Your task to perform on an android device: Clear the cart on target. Add "asus zenbook" to the cart on target, then select checkout. Image 0: 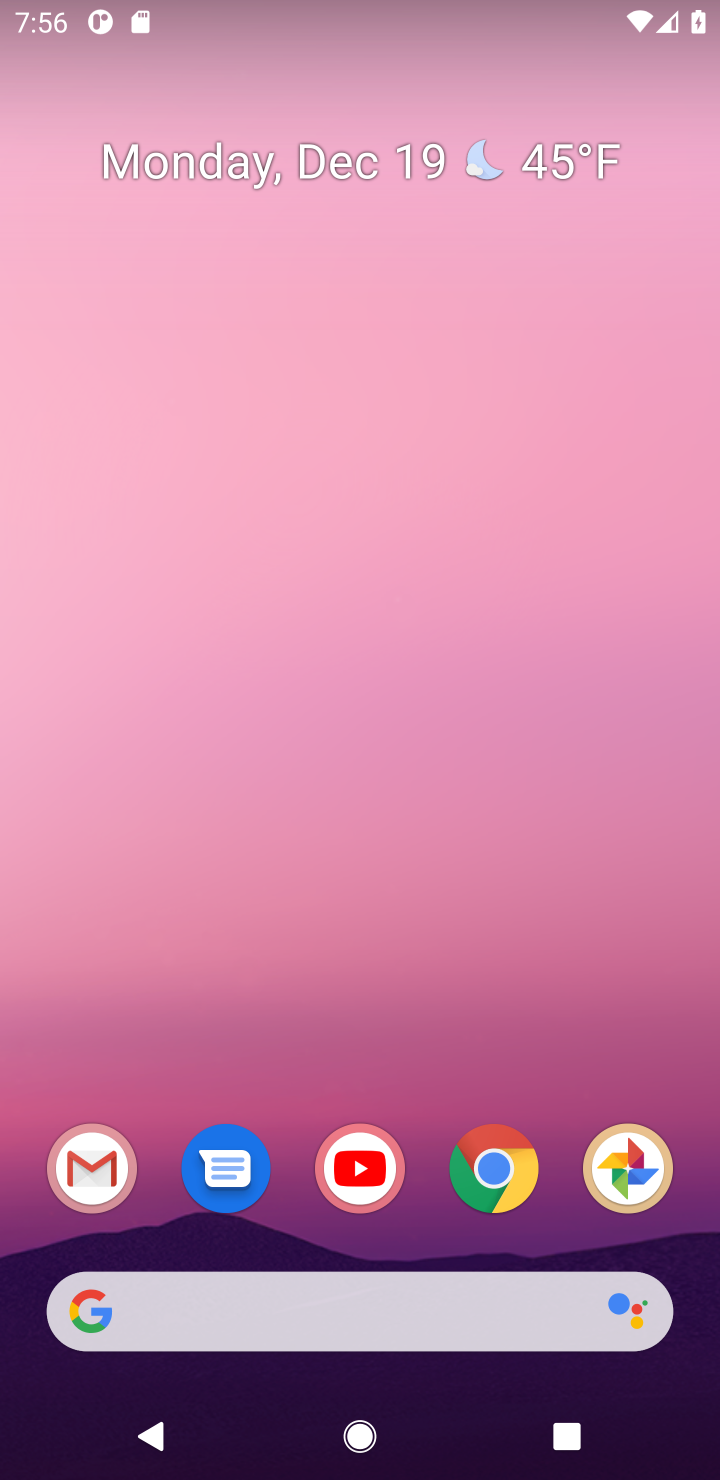
Step 0: click (496, 1169)
Your task to perform on an android device: Clear the cart on target. Add "asus zenbook" to the cart on target, then select checkout. Image 1: 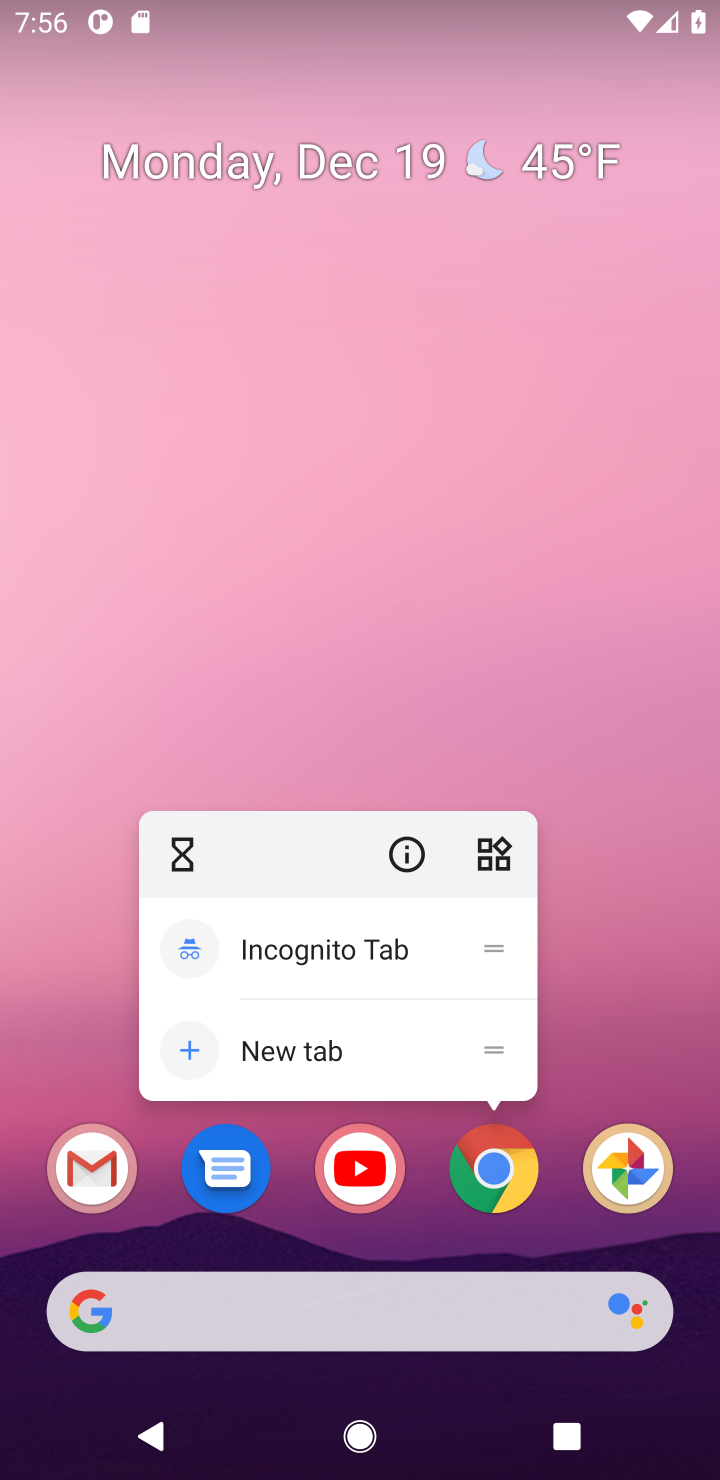
Step 1: click (496, 1169)
Your task to perform on an android device: Clear the cart on target. Add "asus zenbook" to the cart on target, then select checkout. Image 2: 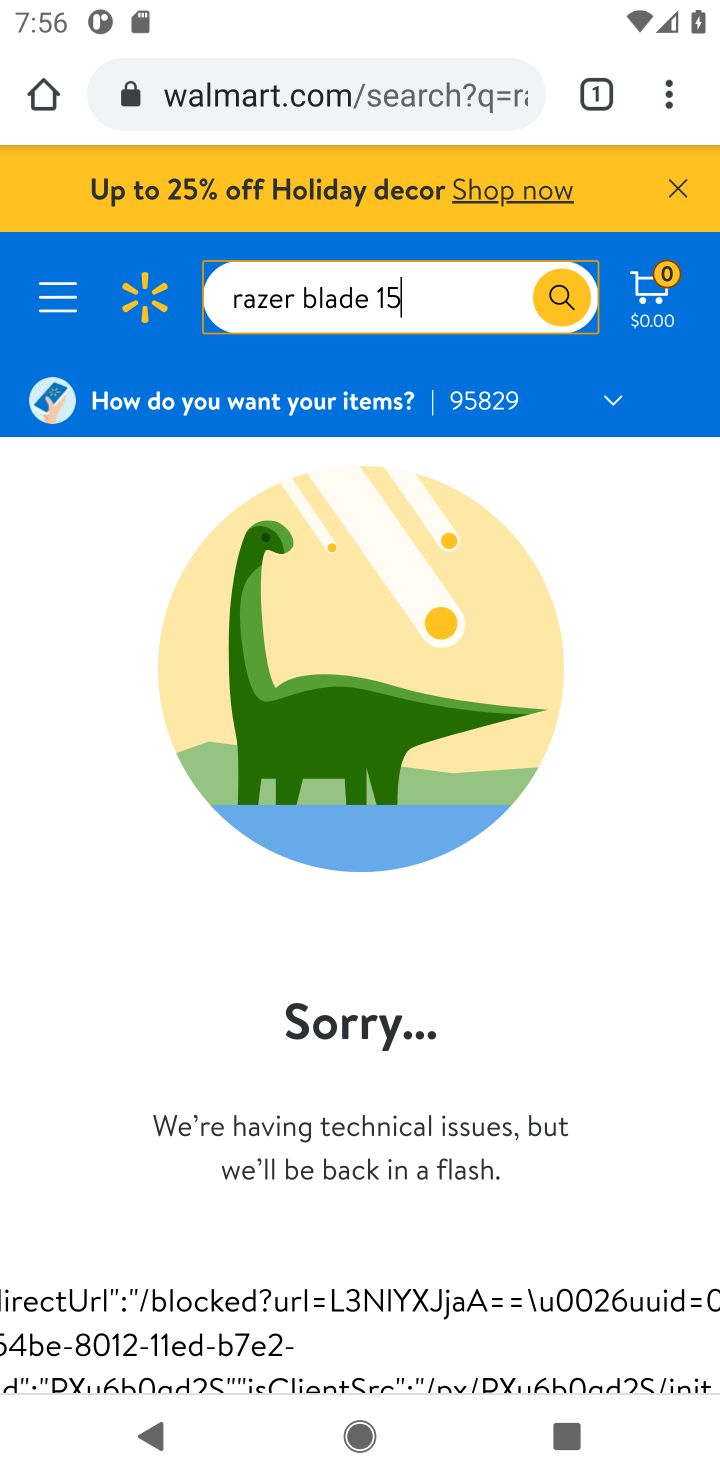
Step 2: click (210, 93)
Your task to perform on an android device: Clear the cart on target. Add "asus zenbook" to the cart on target, then select checkout. Image 3: 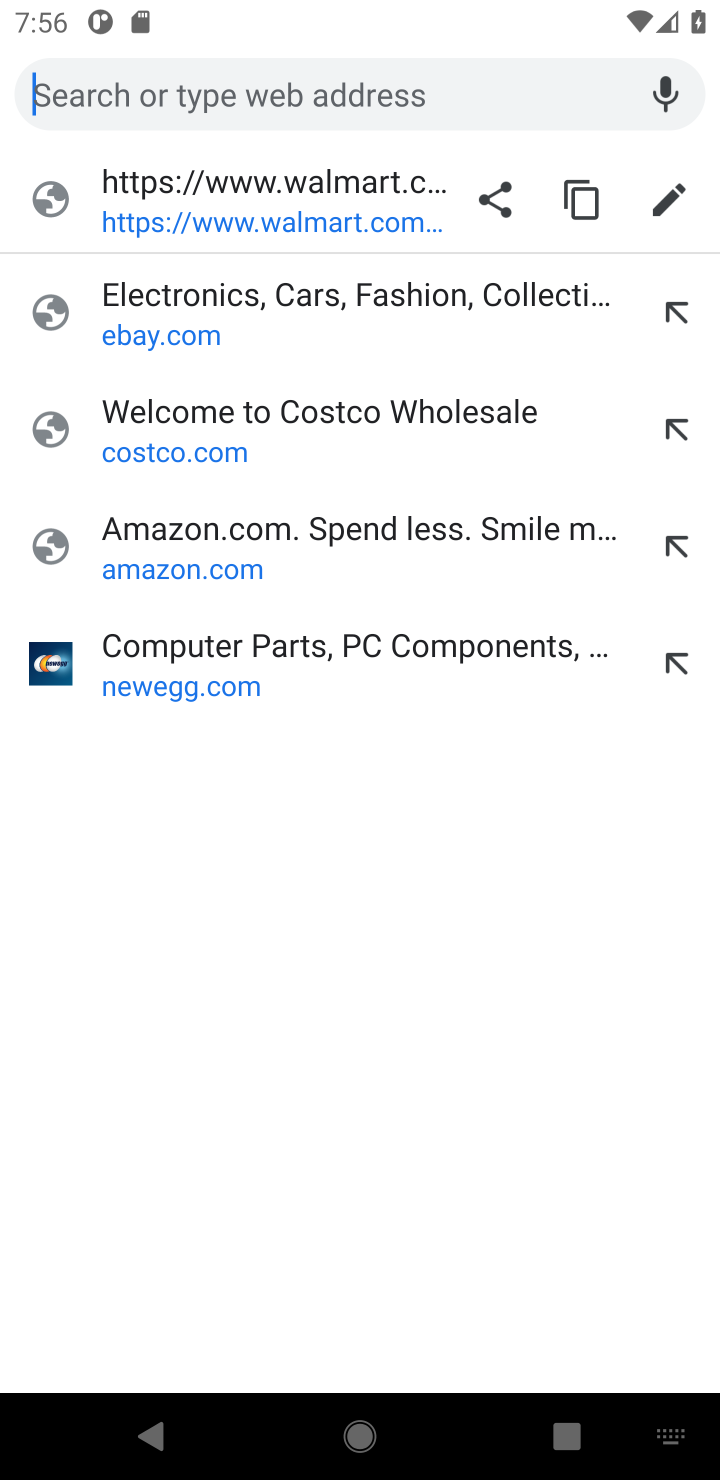
Step 3: type "target.com"
Your task to perform on an android device: Clear the cart on target. Add "asus zenbook" to the cart on target, then select checkout. Image 4: 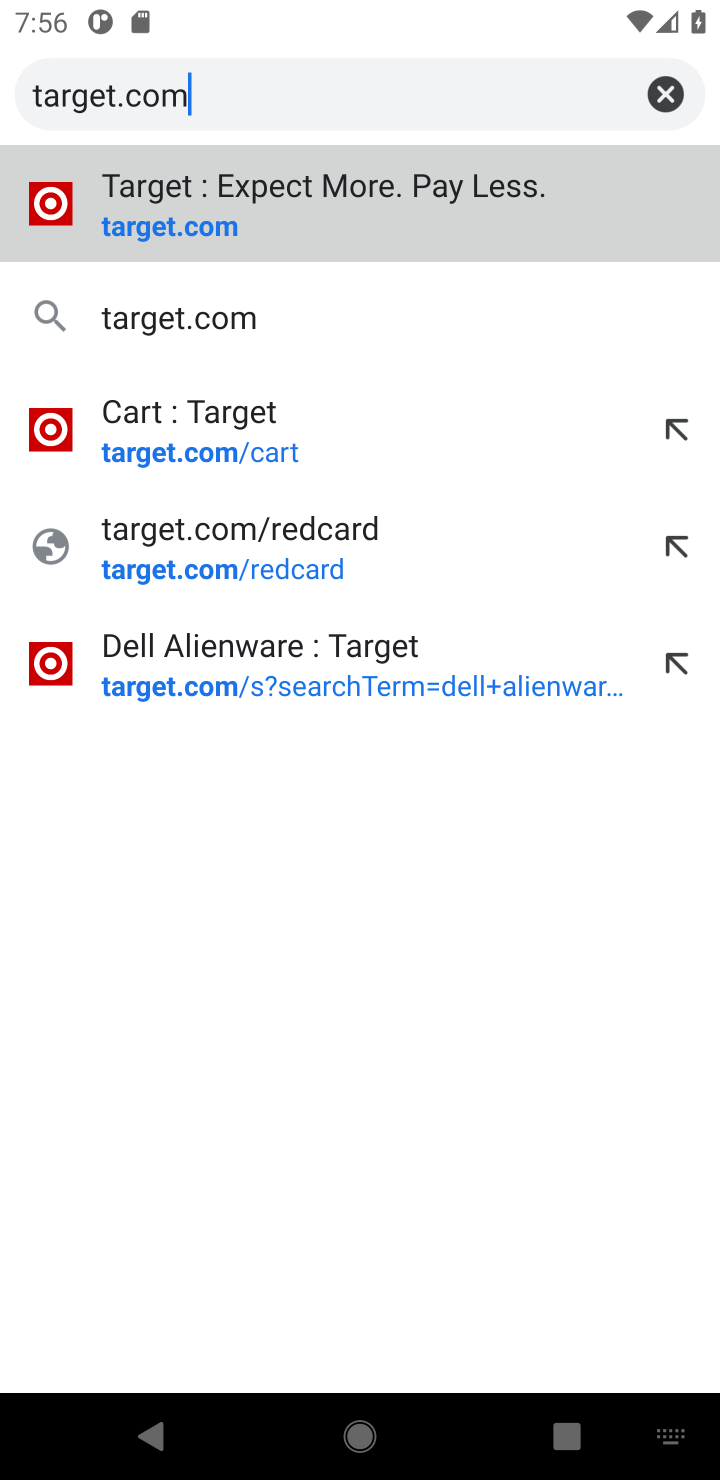
Step 4: click (178, 205)
Your task to perform on an android device: Clear the cart on target. Add "asus zenbook" to the cart on target, then select checkout. Image 5: 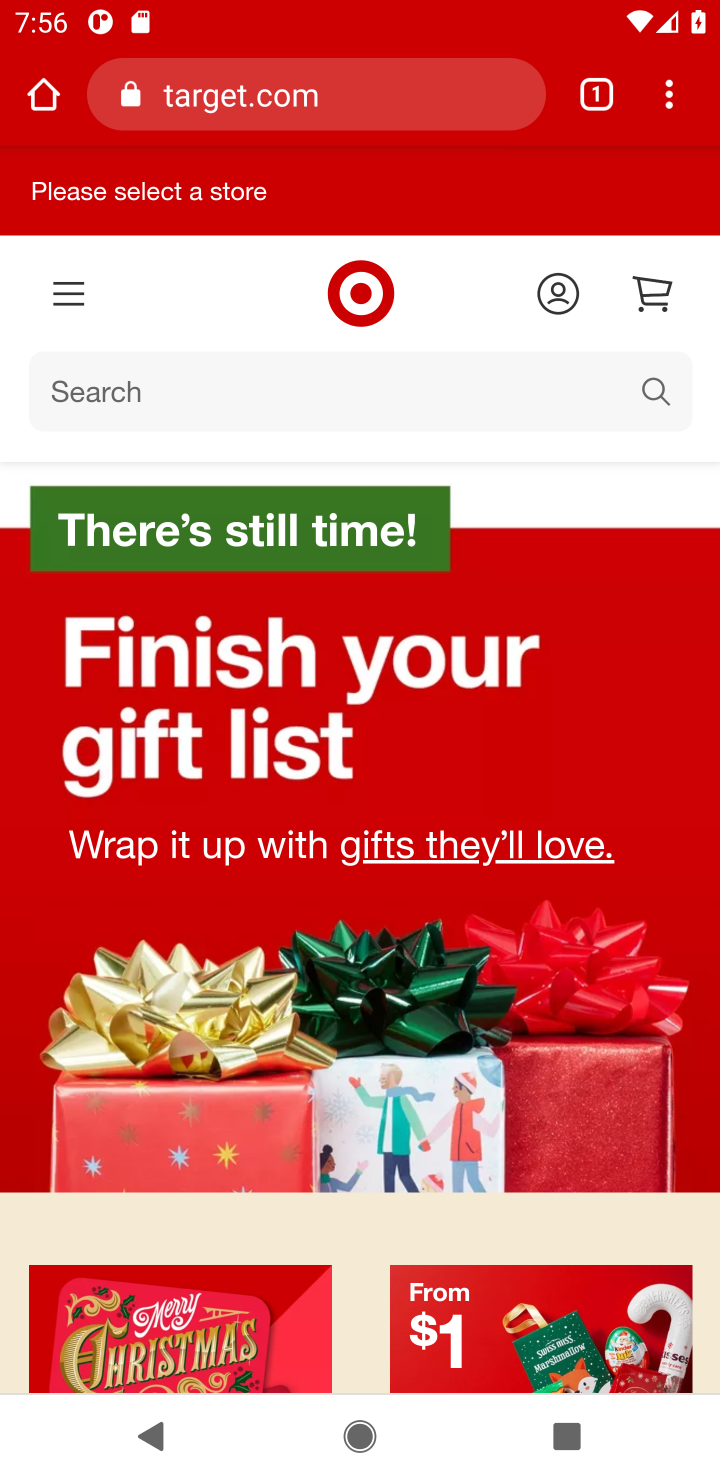
Step 5: click (73, 389)
Your task to perform on an android device: Clear the cart on target. Add "asus zenbook" to the cart on target, then select checkout. Image 6: 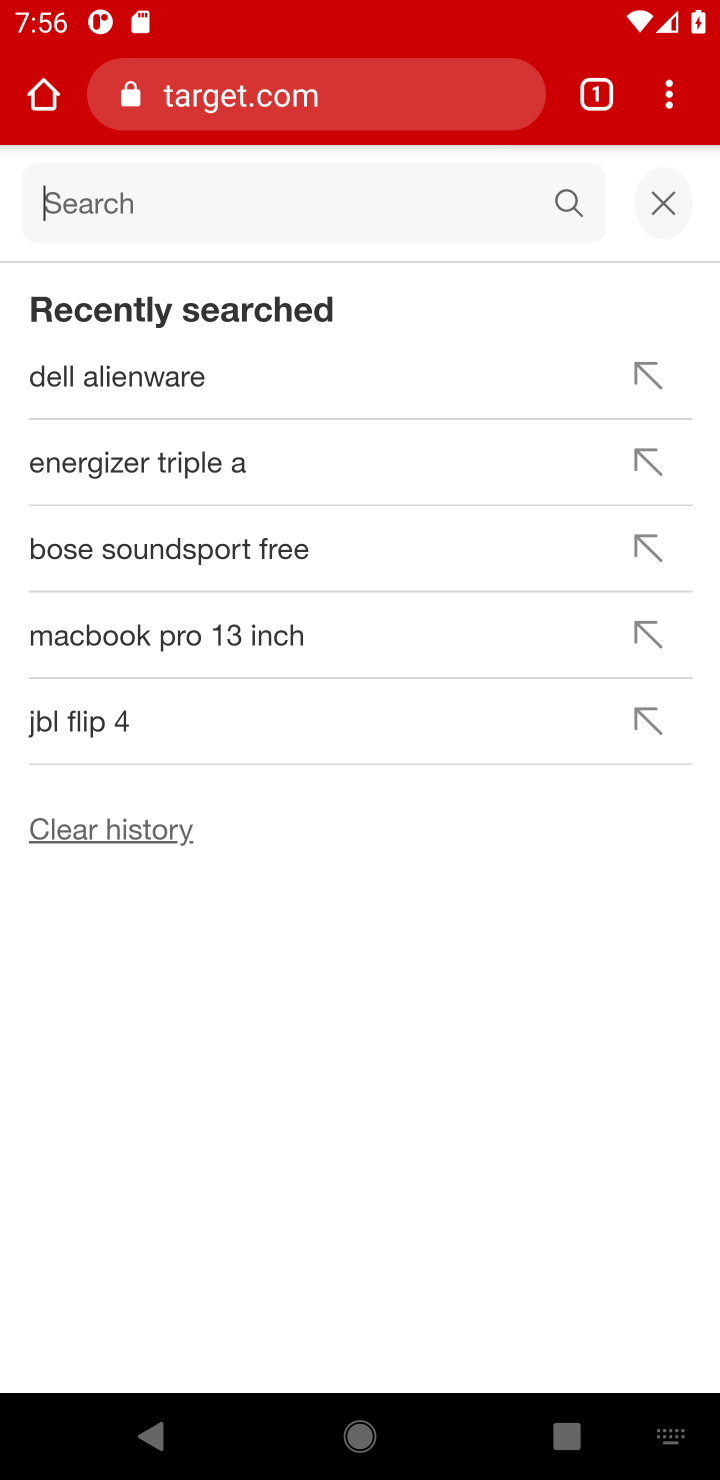
Step 6: type "asus zenbook"
Your task to perform on an android device: Clear the cart on target. Add "asus zenbook" to the cart on target, then select checkout. Image 7: 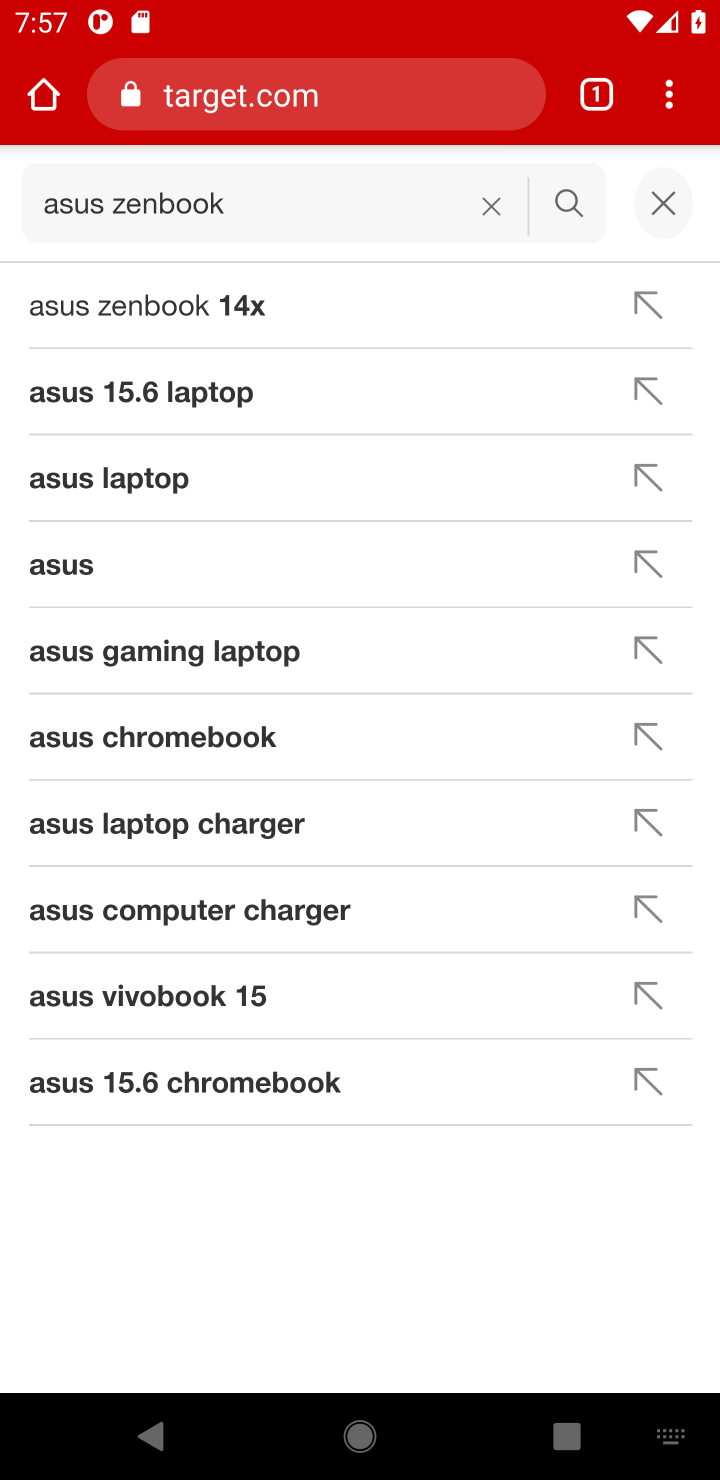
Step 7: click (560, 191)
Your task to perform on an android device: Clear the cart on target. Add "asus zenbook" to the cart on target, then select checkout. Image 8: 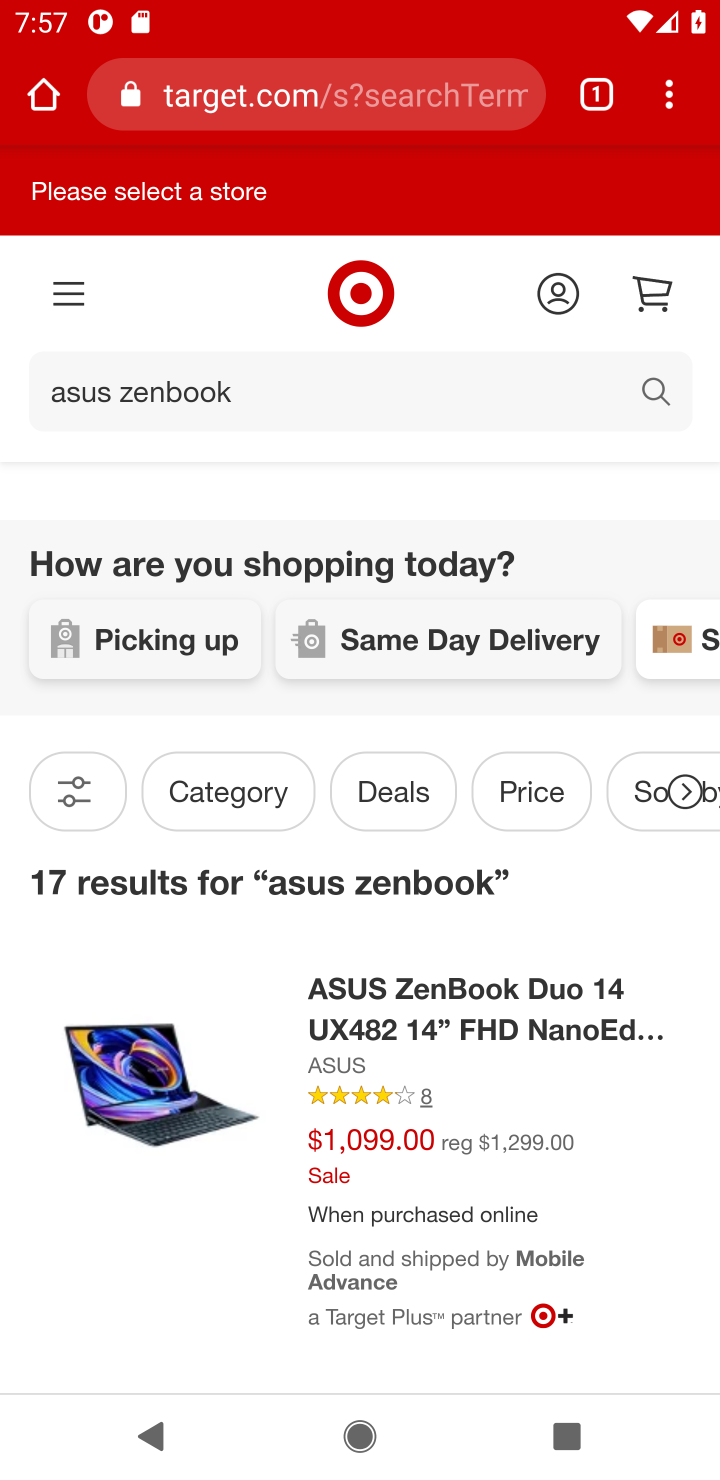
Step 8: click (360, 1029)
Your task to perform on an android device: Clear the cart on target. Add "asus zenbook" to the cart on target, then select checkout. Image 9: 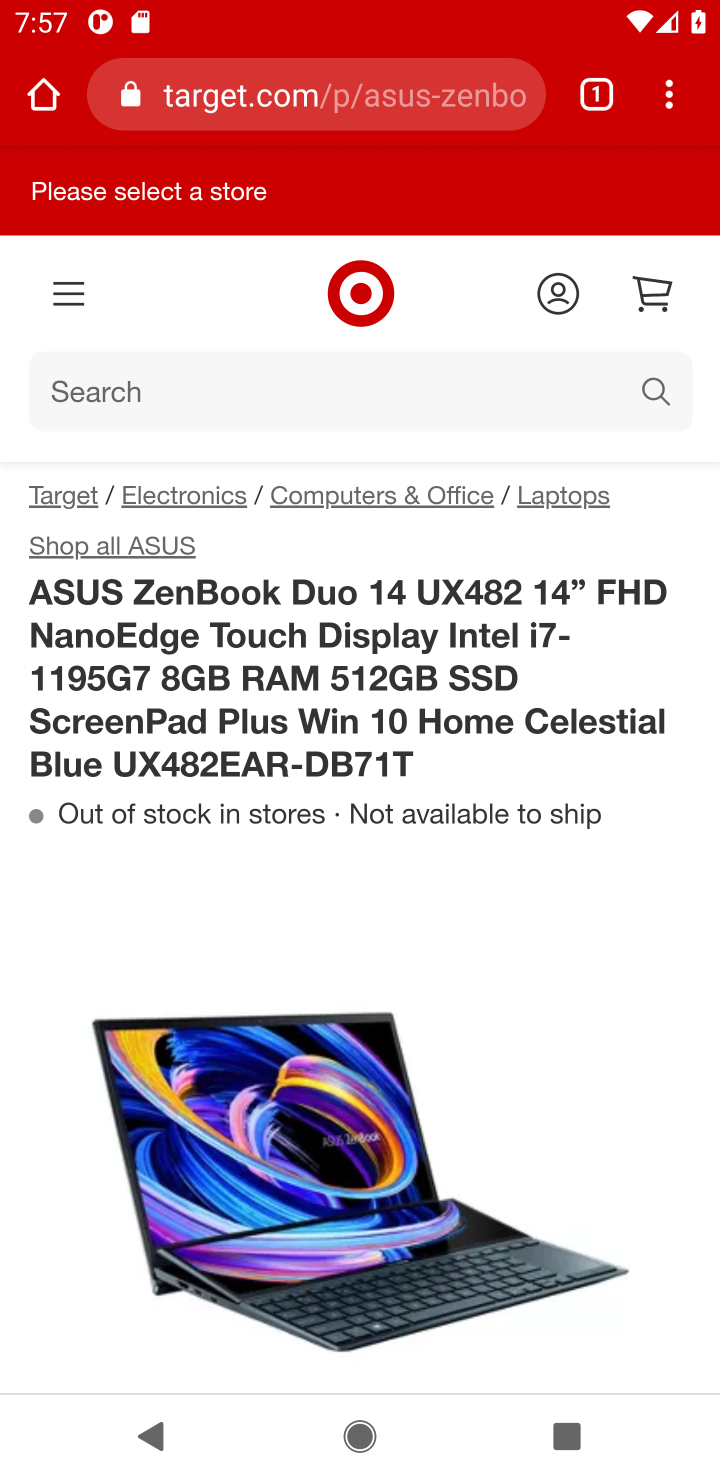
Step 9: drag from (315, 952) to (262, 357)
Your task to perform on an android device: Clear the cart on target. Add "asus zenbook" to the cart on target, then select checkout. Image 10: 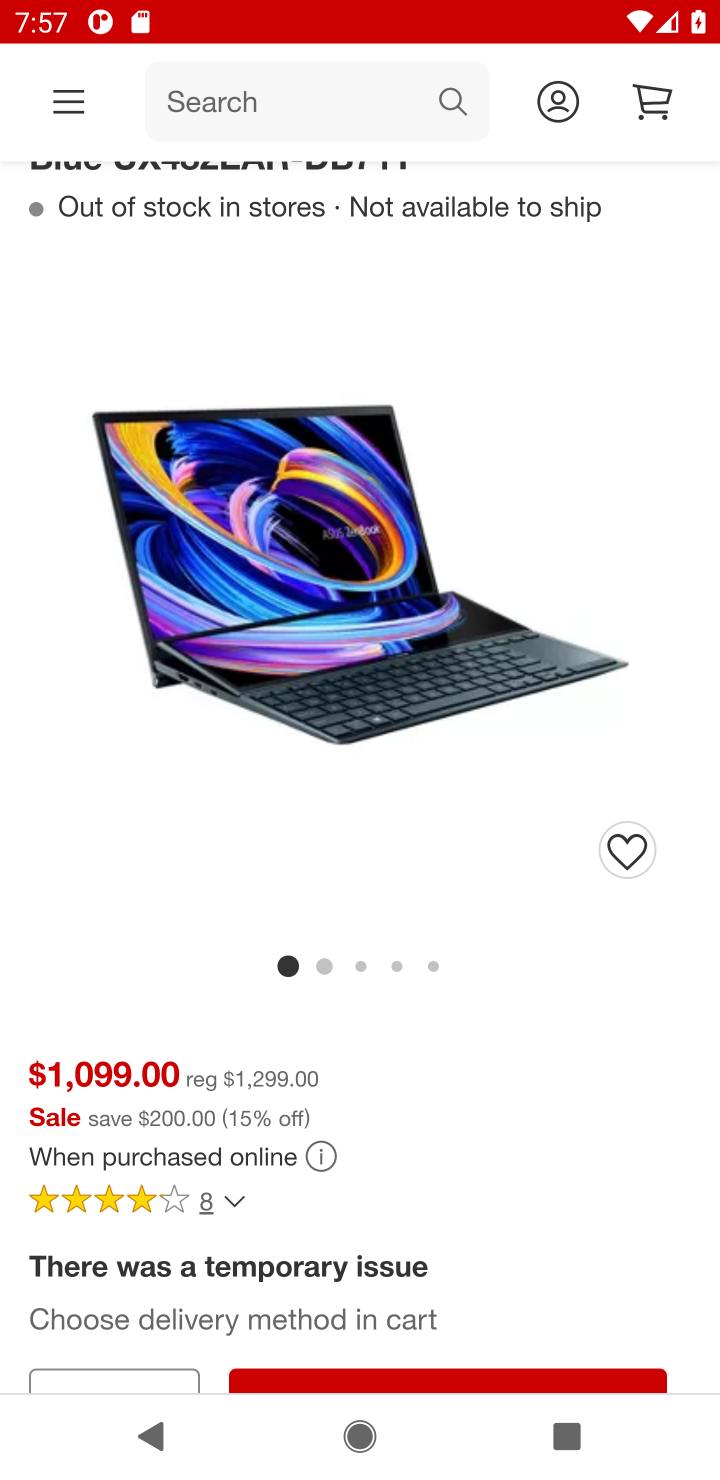
Step 10: drag from (326, 1157) to (251, 528)
Your task to perform on an android device: Clear the cart on target. Add "asus zenbook" to the cart on target, then select checkout. Image 11: 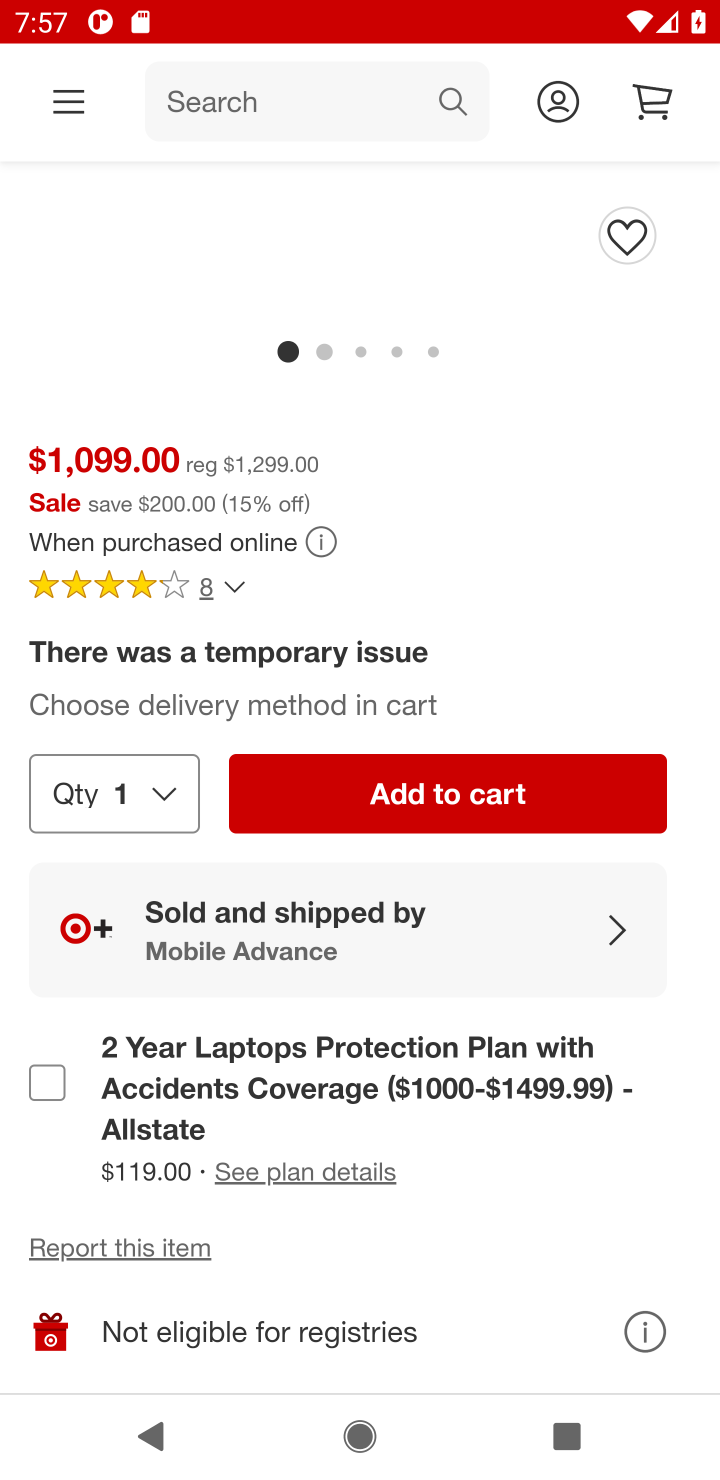
Step 11: click (422, 806)
Your task to perform on an android device: Clear the cart on target. Add "asus zenbook" to the cart on target, then select checkout. Image 12: 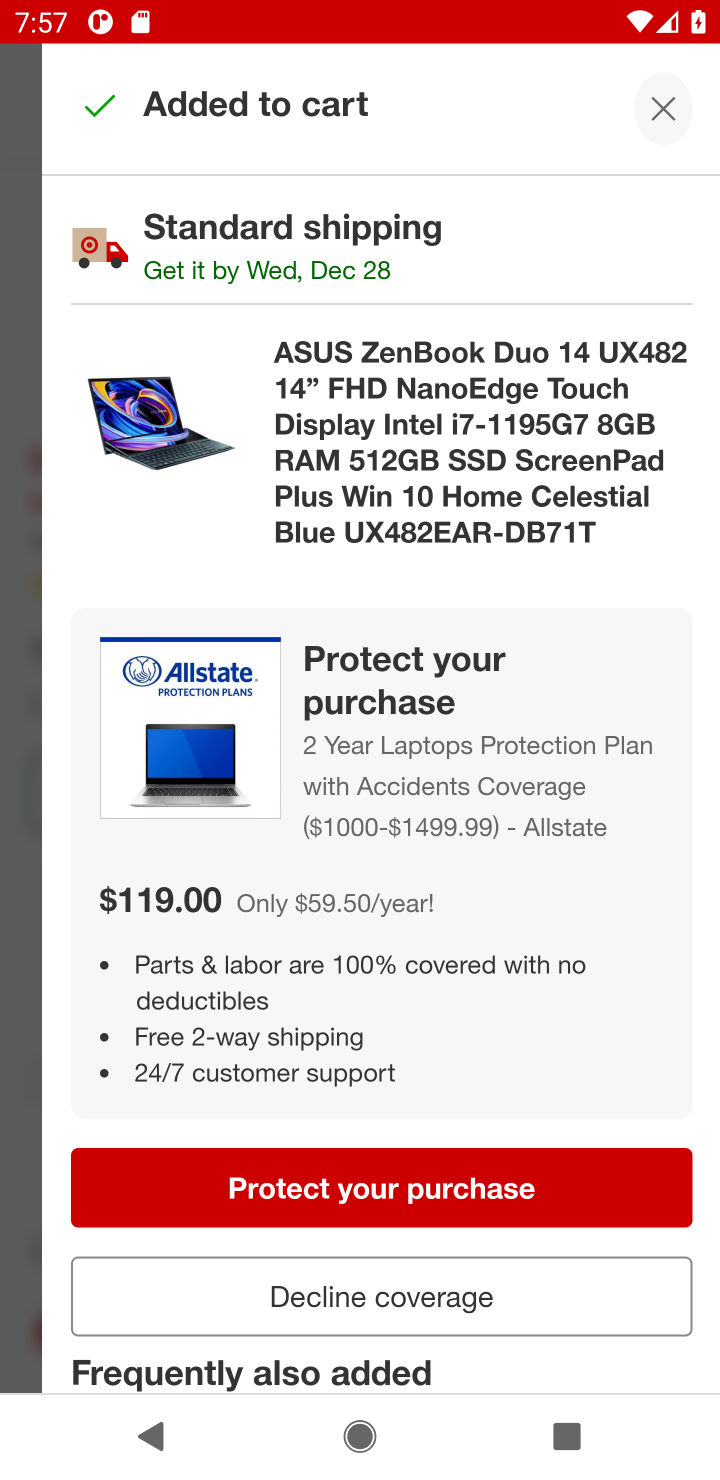
Step 12: click (665, 113)
Your task to perform on an android device: Clear the cart on target. Add "asus zenbook" to the cart on target, then select checkout. Image 13: 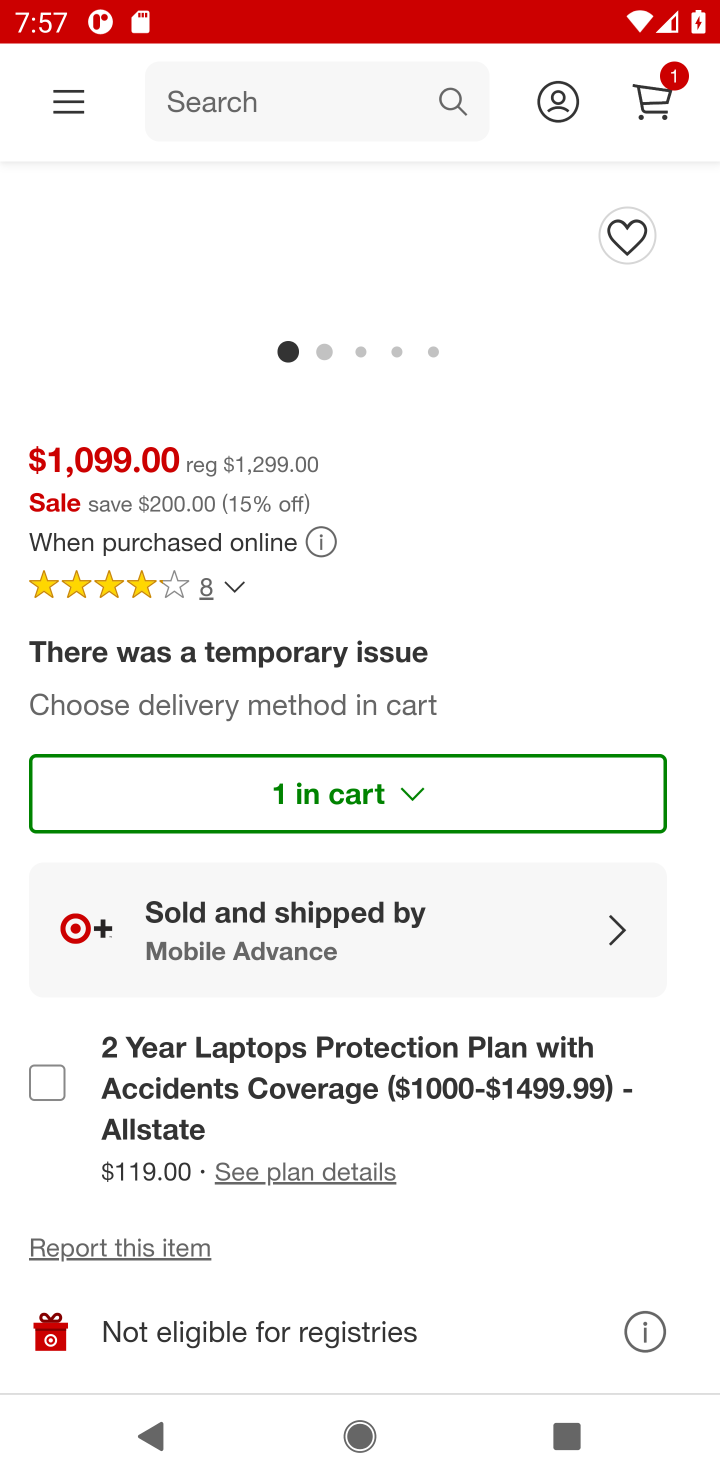
Step 13: click (654, 98)
Your task to perform on an android device: Clear the cart on target. Add "asus zenbook" to the cart on target, then select checkout. Image 14: 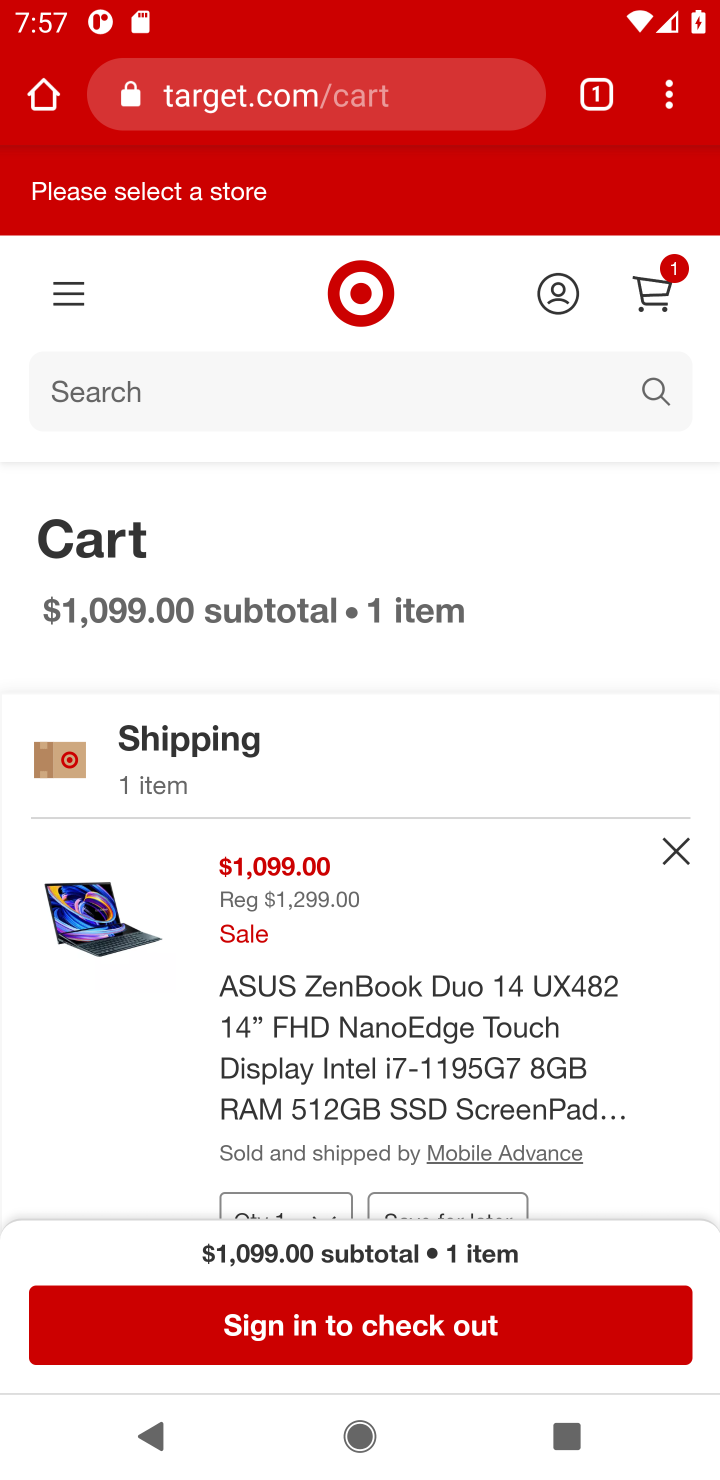
Step 14: click (341, 1327)
Your task to perform on an android device: Clear the cart on target. Add "asus zenbook" to the cart on target, then select checkout. Image 15: 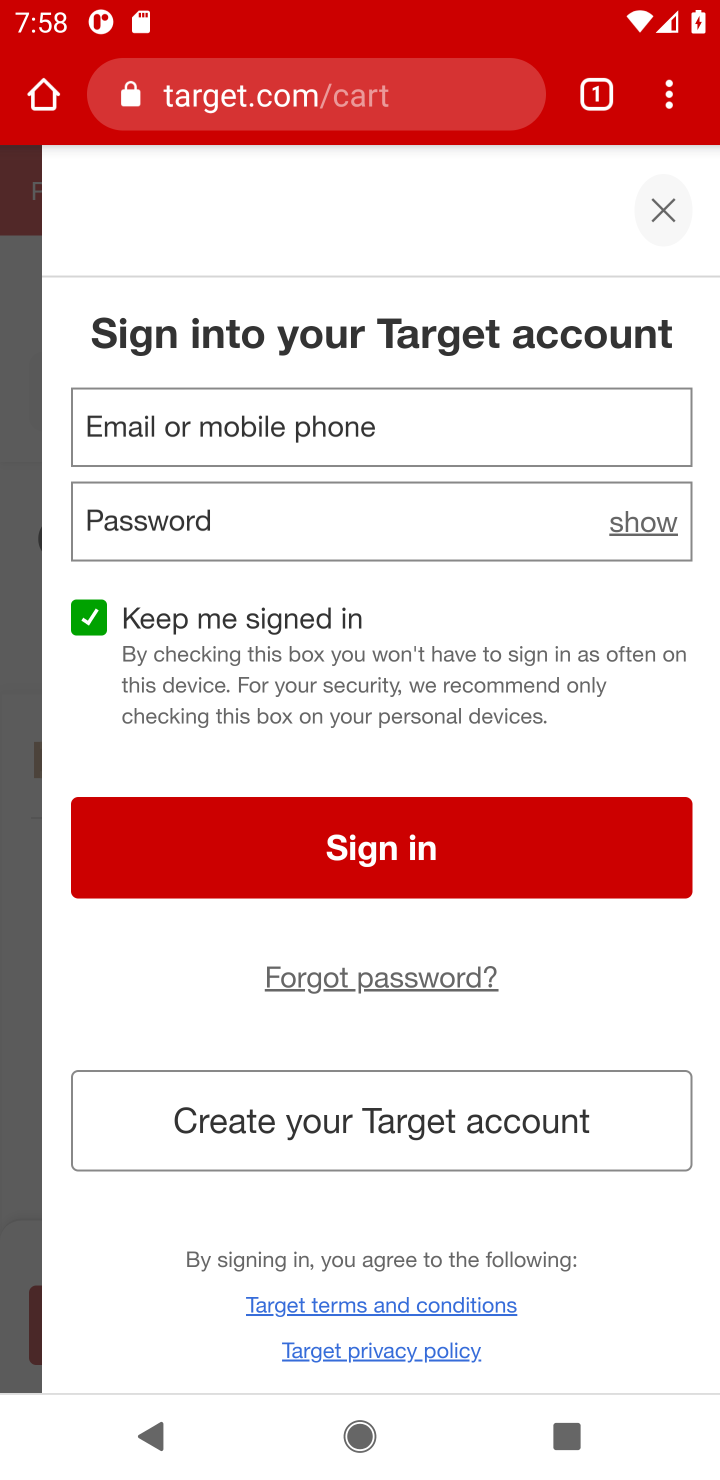
Step 15: task complete